Your task to perform on an android device: Show me recent news Image 0: 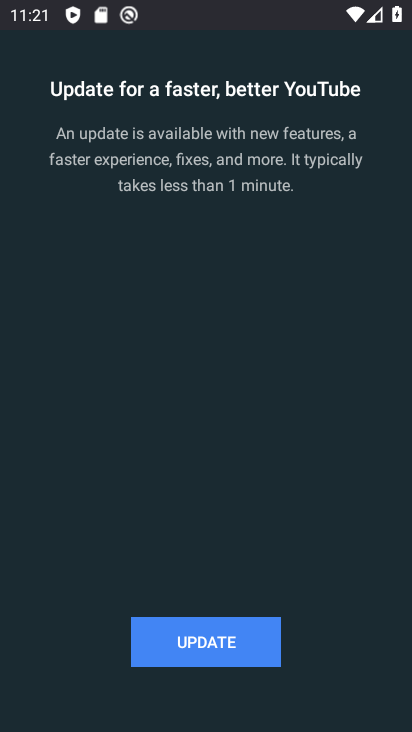
Step 0: press home button
Your task to perform on an android device: Show me recent news Image 1: 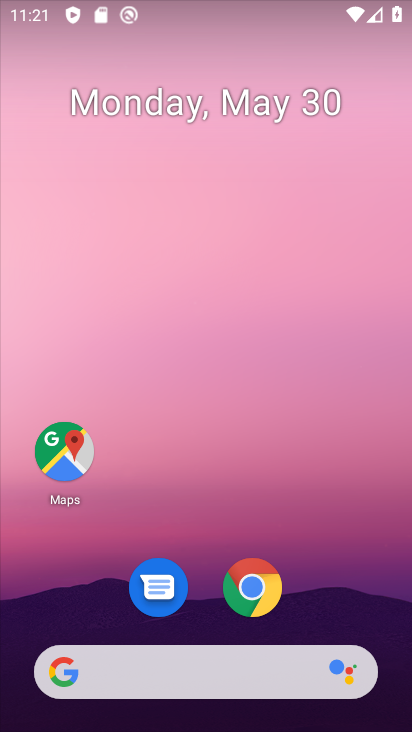
Step 1: click (228, 677)
Your task to perform on an android device: Show me recent news Image 2: 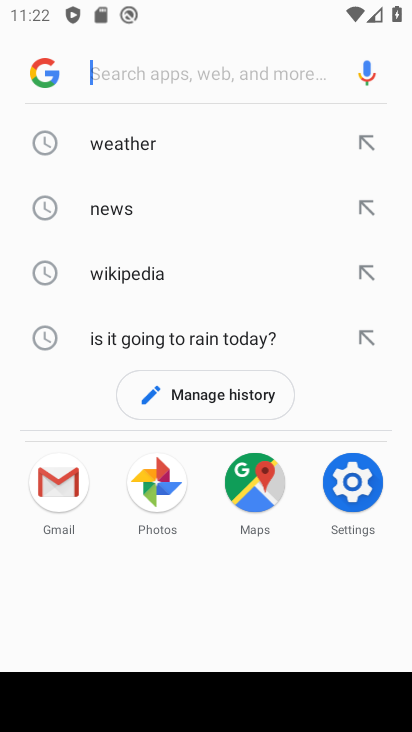
Step 2: click (123, 216)
Your task to perform on an android device: Show me recent news Image 3: 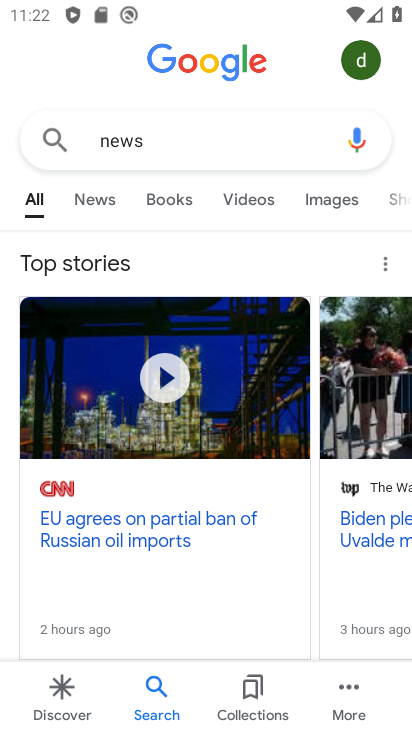
Step 3: task complete